Your task to perform on an android device: find snoozed emails in the gmail app Image 0: 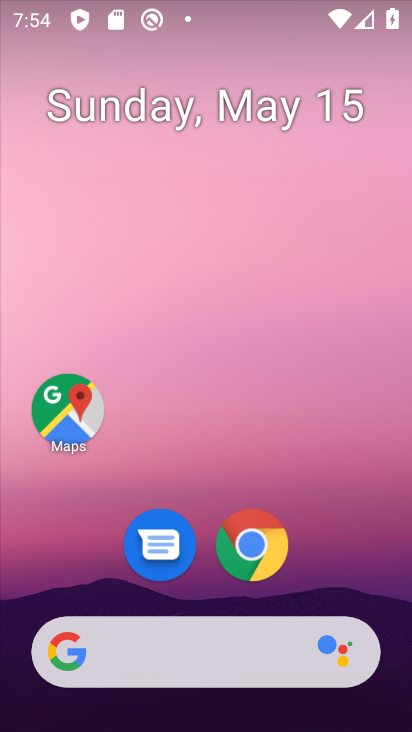
Step 0: drag from (357, 550) to (411, 554)
Your task to perform on an android device: find snoozed emails in the gmail app Image 1: 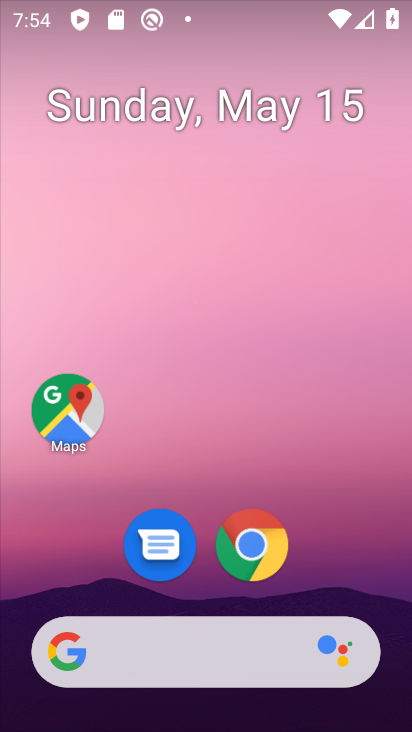
Step 1: click (365, 605)
Your task to perform on an android device: find snoozed emails in the gmail app Image 2: 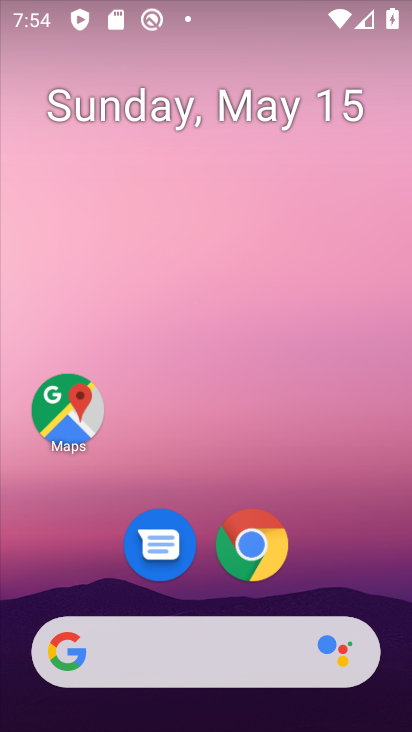
Step 2: drag from (354, 523) to (344, 33)
Your task to perform on an android device: find snoozed emails in the gmail app Image 3: 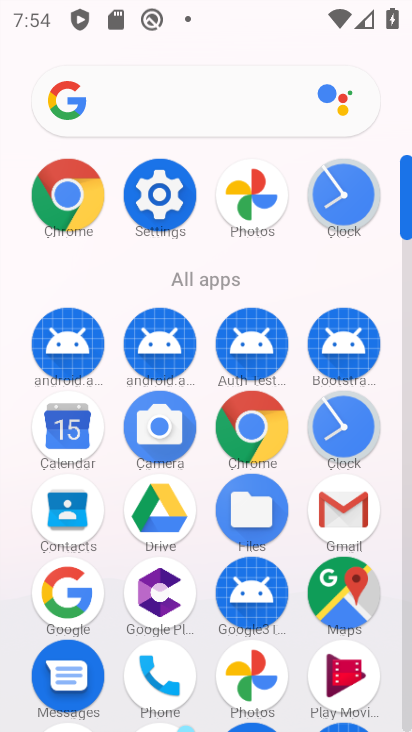
Step 3: click (343, 506)
Your task to perform on an android device: find snoozed emails in the gmail app Image 4: 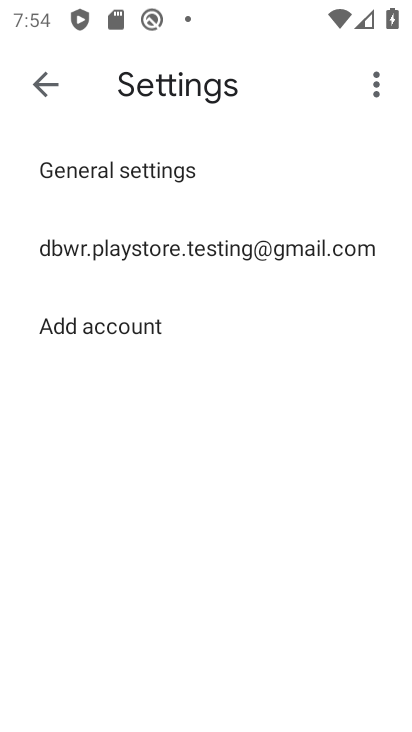
Step 4: click (45, 78)
Your task to perform on an android device: find snoozed emails in the gmail app Image 5: 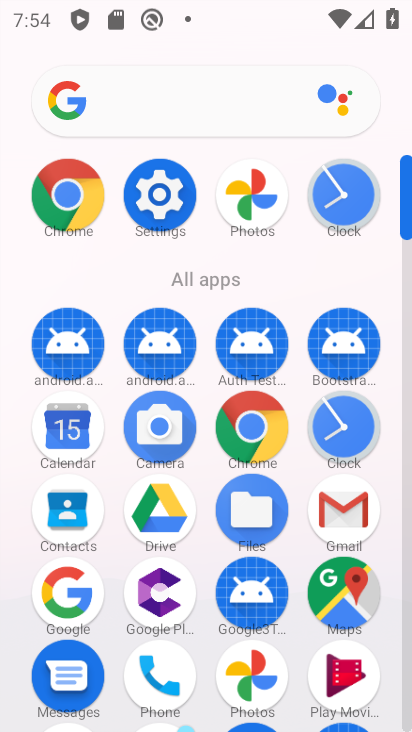
Step 5: click (366, 521)
Your task to perform on an android device: find snoozed emails in the gmail app Image 6: 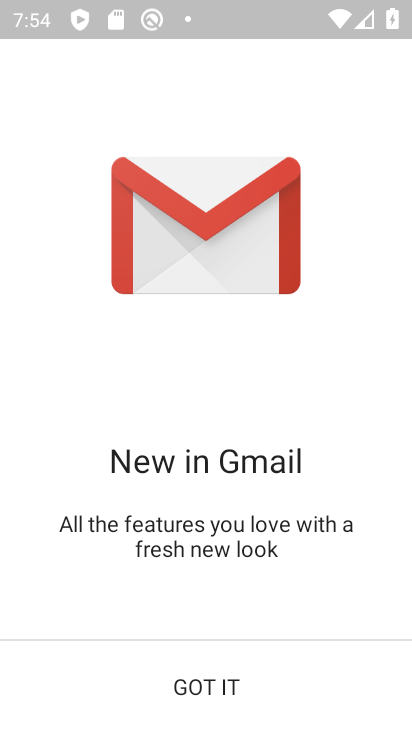
Step 6: click (241, 674)
Your task to perform on an android device: find snoozed emails in the gmail app Image 7: 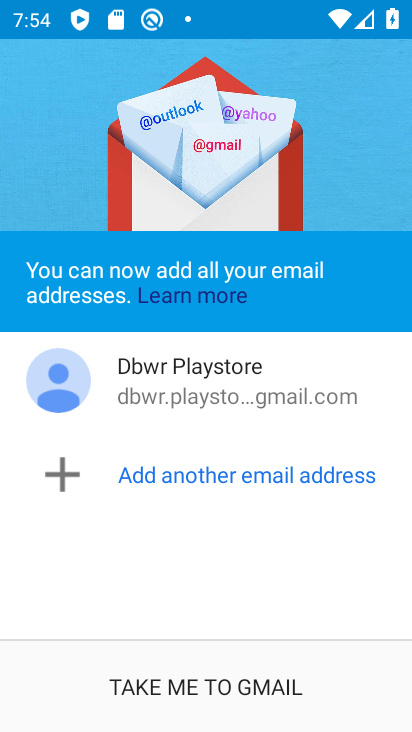
Step 7: click (238, 682)
Your task to perform on an android device: find snoozed emails in the gmail app Image 8: 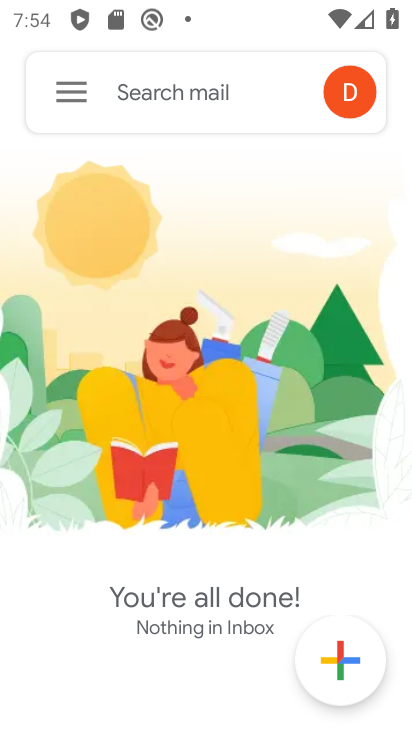
Step 8: click (88, 90)
Your task to perform on an android device: find snoozed emails in the gmail app Image 9: 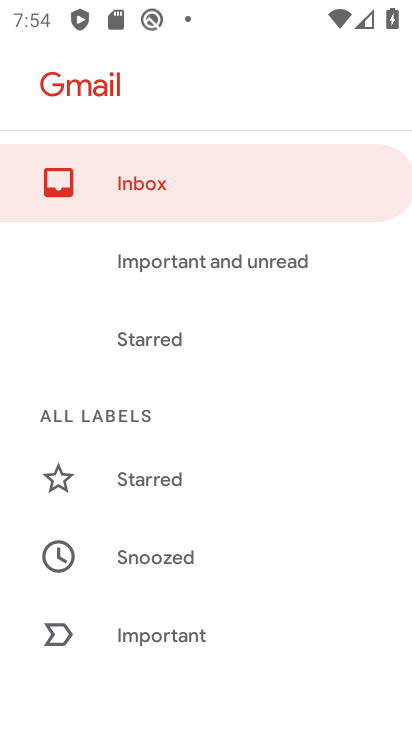
Step 9: drag from (293, 605) to (323, 420)
Your task to perform on an android device: find snoozed emails in the gmail app Image 10: 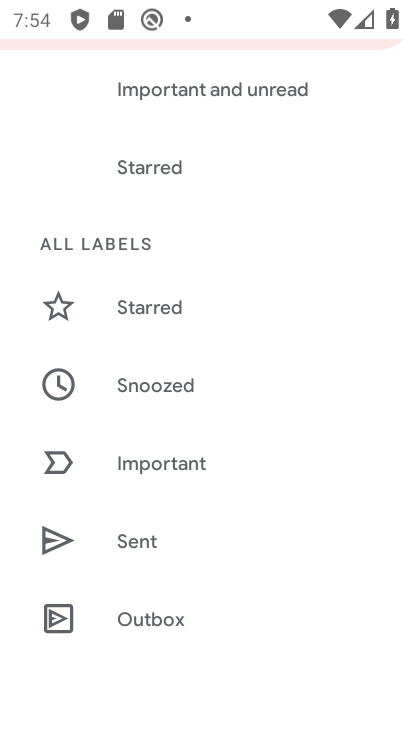
Step 10: drag from (293, 565) to (347, 210)
Your task to perform on an android device: find snoozed emails in the gmail app Image 11: 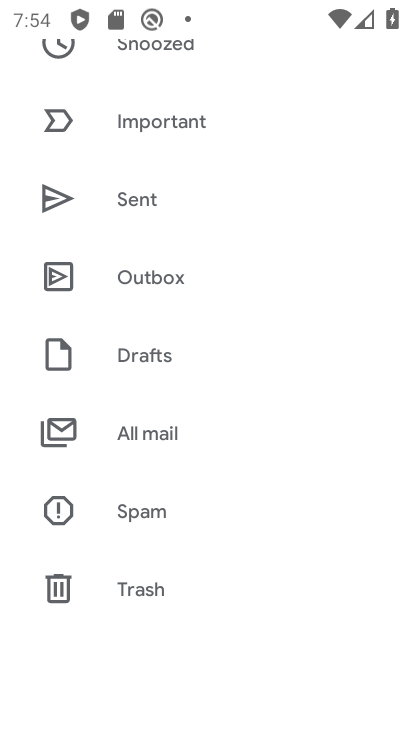
Step 11: drag from (331, 103) to (325, 370)
Your task to perform on an android device: find snoozed emails in the gmail app Image 12: 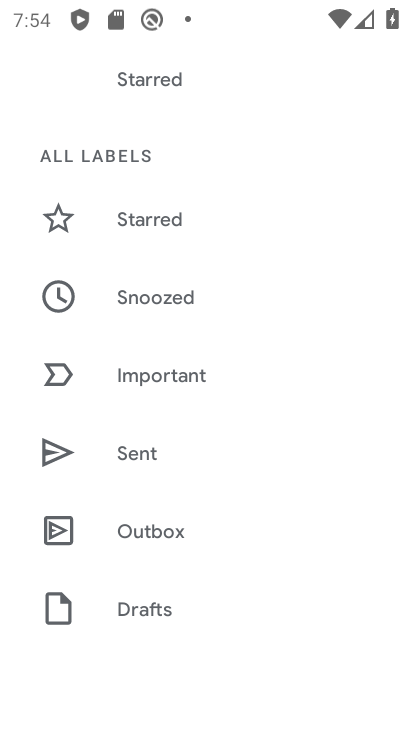
Step 12: drag from (286, 358) to (287, 449)
Your task to perform on an android device: find snoozed emails in the gmail app Image 13: 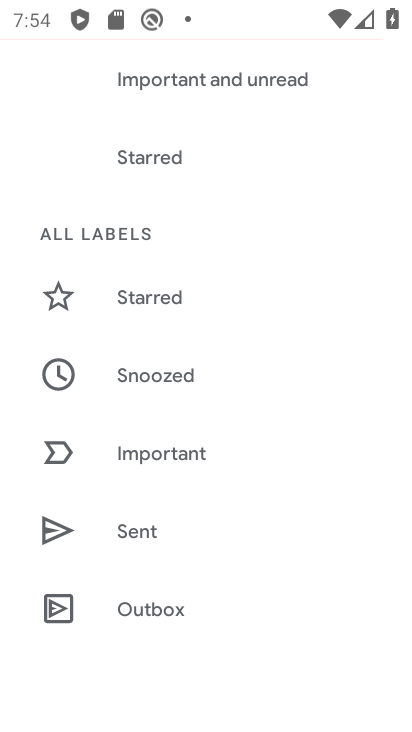
Step 13: click (174, 380)
Your task to perform on an android device: find snoozed emails in the gmail app Image 14: 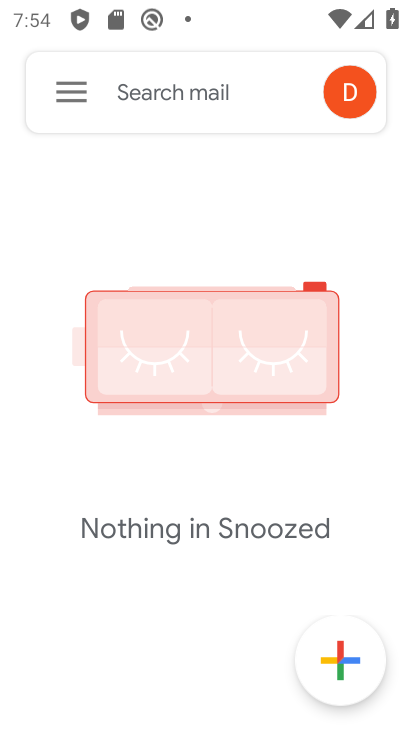
Step 14: task complete